Your task to perform on an android device: Go to battery settings Image 0: 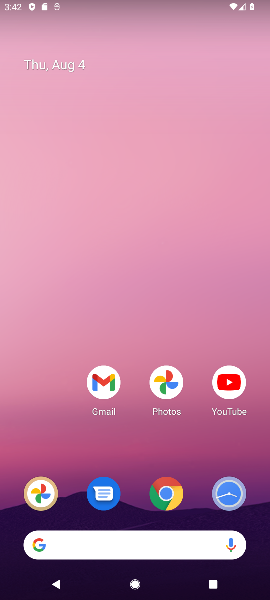
Step 0: drag from (122, 524) to (168, 243)
Your task to perform on an android device: Go to battery settings Image 1: 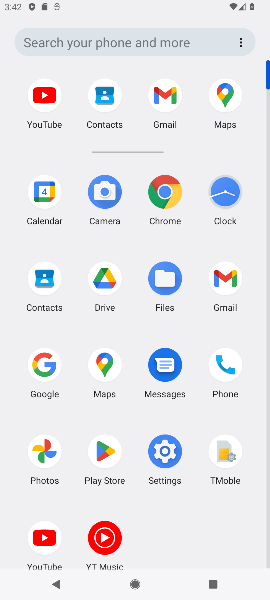
Step 1: click (162, 456)
Your task to perform on an android device: Go to battery settings Image 2: 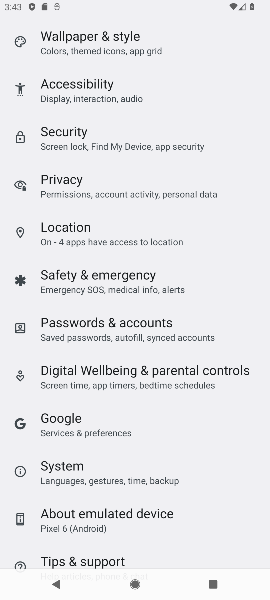
Step 2: press home button
Your task to perform on an android device: Go to battery settings Image 3: 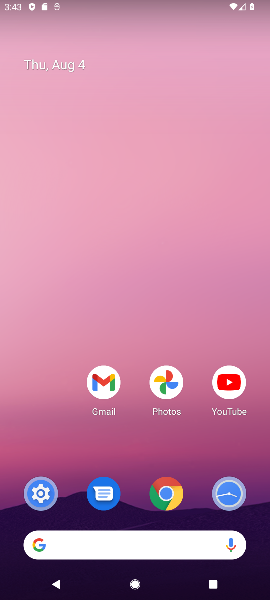
Step 3: drag from (137, 542) to (180, 204)
Your task to perform on an android device: Go to battery settings Image 4: 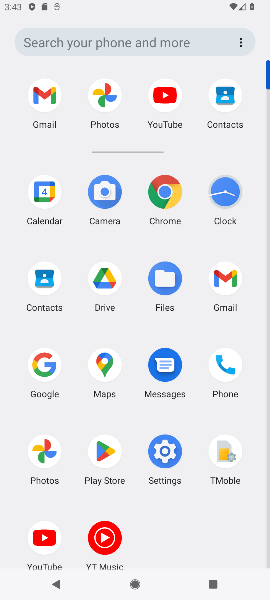
Step 4: click (165, 450)
Your task to perform on an android device: Go to battery settings Image 5: 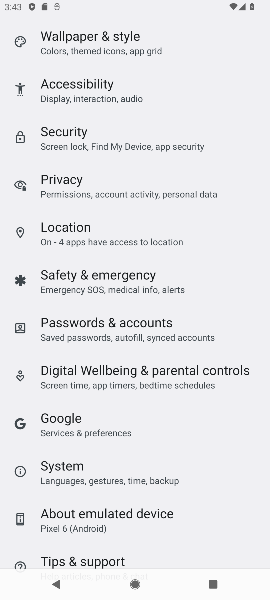
Step 5: drag from (119, 116) to (156, 364)
Your task to perform on an android device: Go to battery settings Image 6: 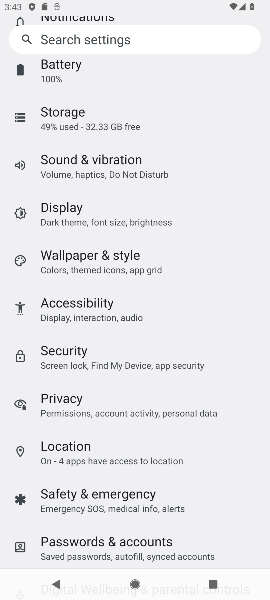
Step 6: click (68, 69)
Your task to perform on an android device: Go to battery settings Image 7: 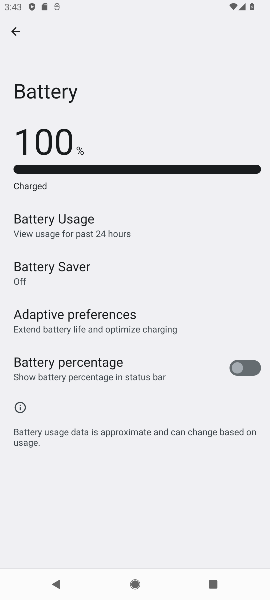
Step 7: task complete